Your task to perform on an android device: Go to calendar. Show me events next week Image 0: 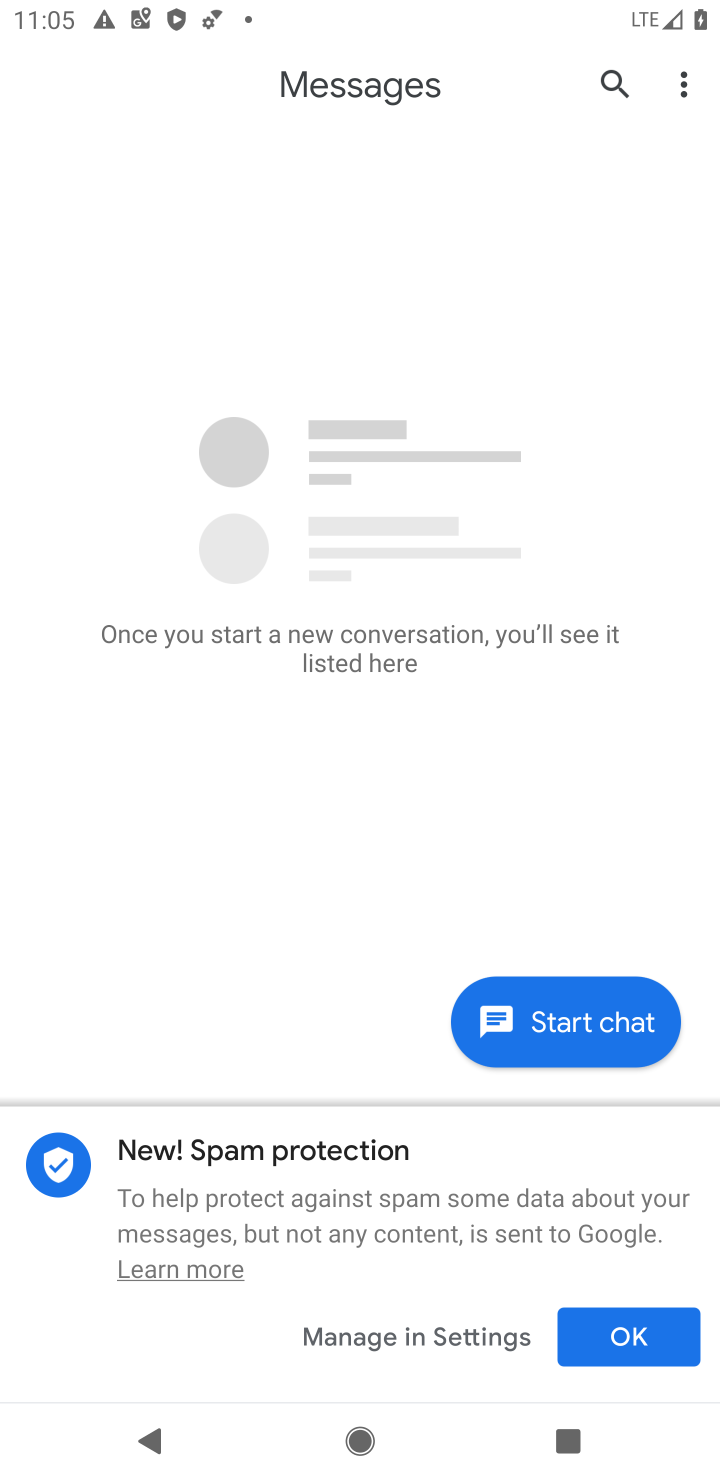
Step 0: press home button
Your task to perform on an android device: Go to calendar. Show me events next week Image 1: 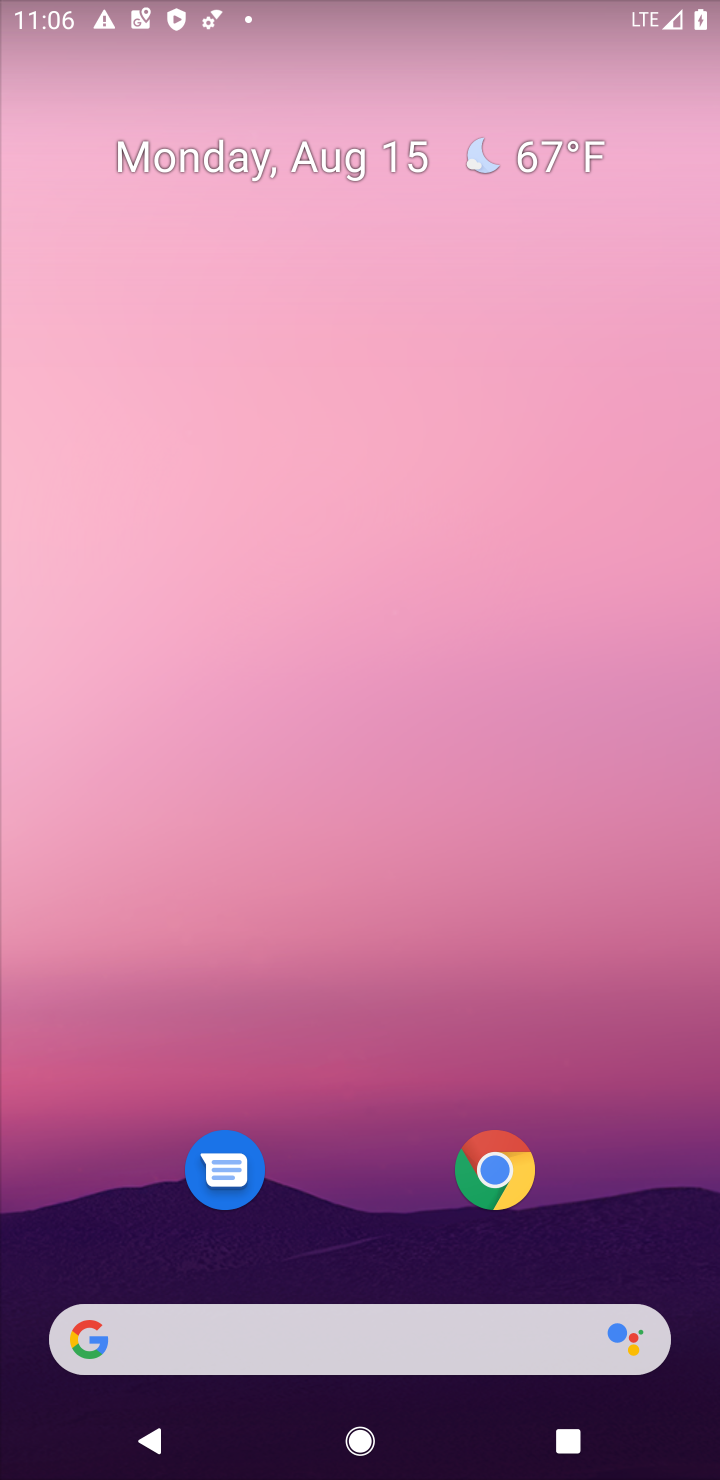
Step 1: drag from (454, 591) to (510, 87)
Your task to perform on an android device: Go to calendar. Show me events next week Image 2: 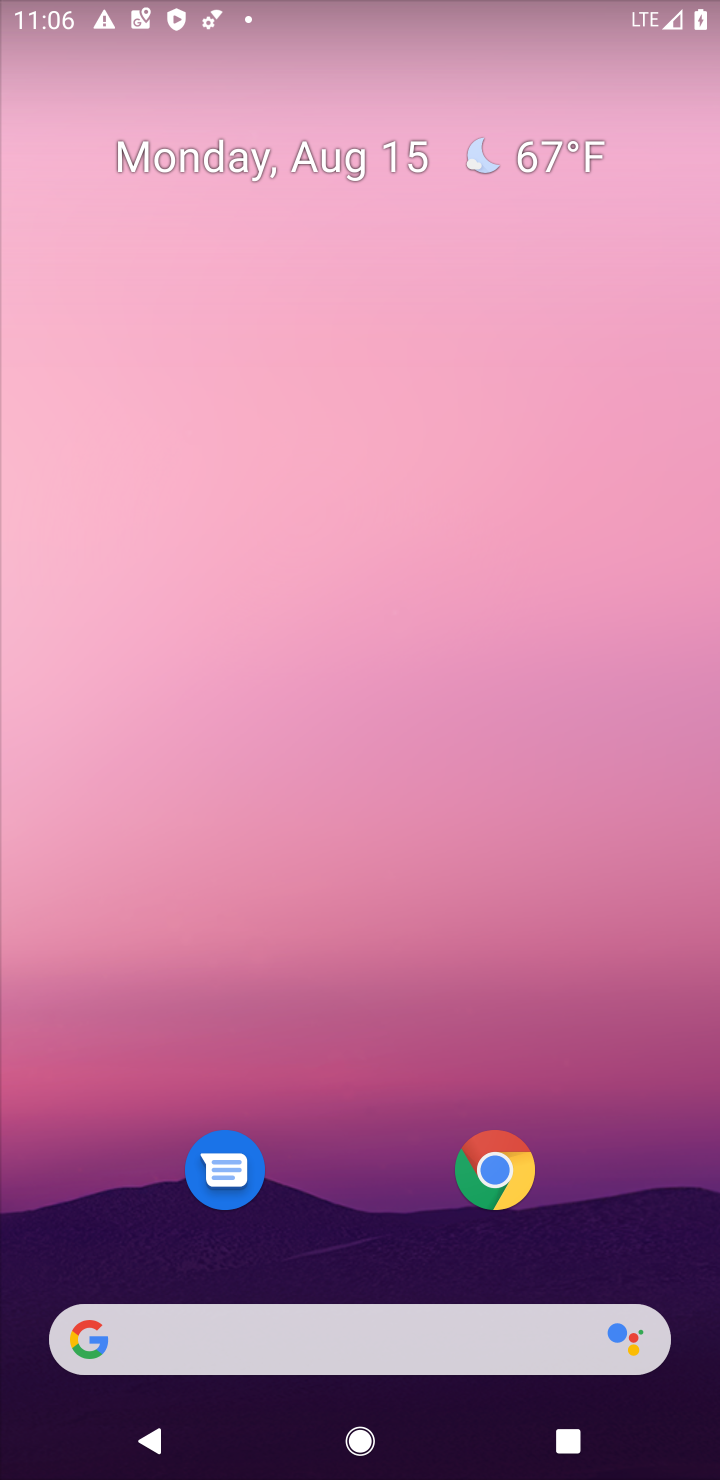
Step 2: drag from (365, 1249) to (449, 136)
Your task to perform on an android device: Go to calendar. Show me events next week Image 3: 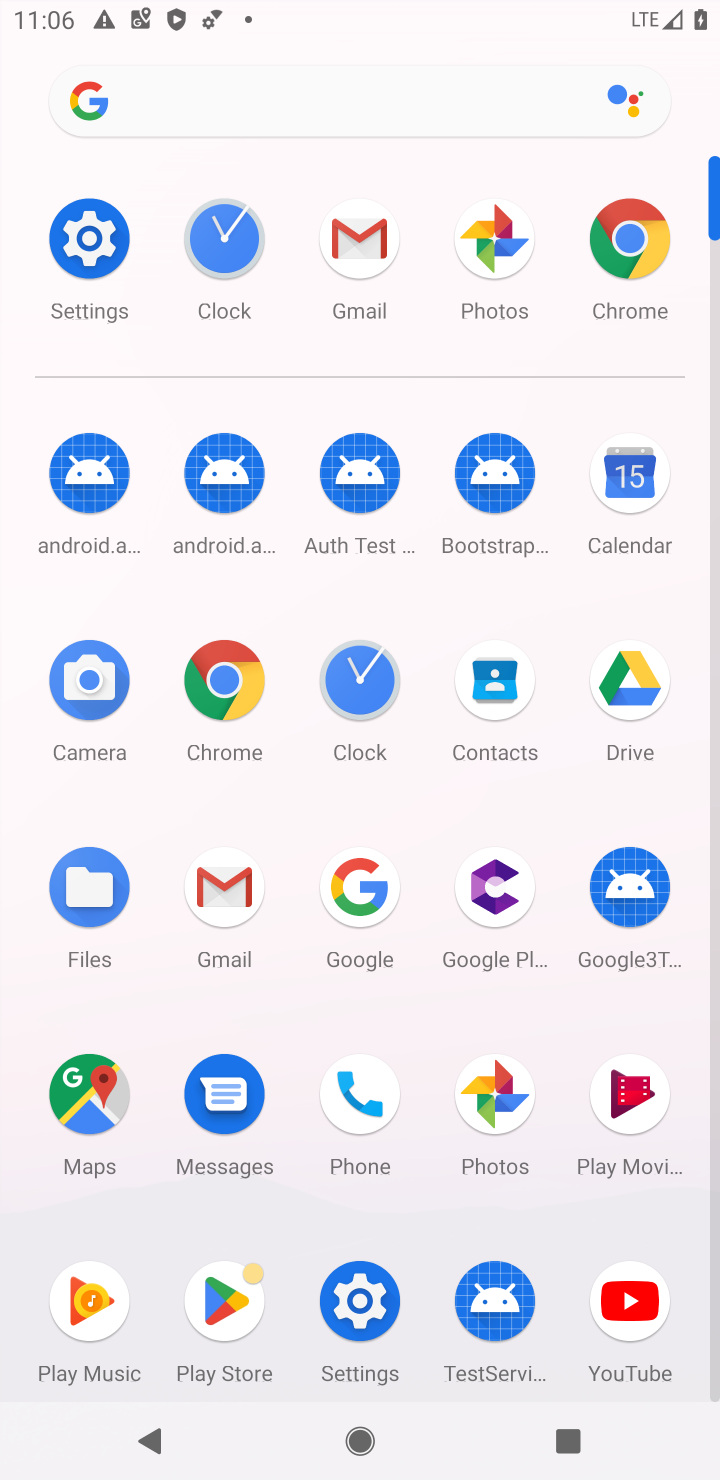
Step 3: click (621, 478)
Your task to perform on an android device: Go to calendar. Show me events next week Image 4: 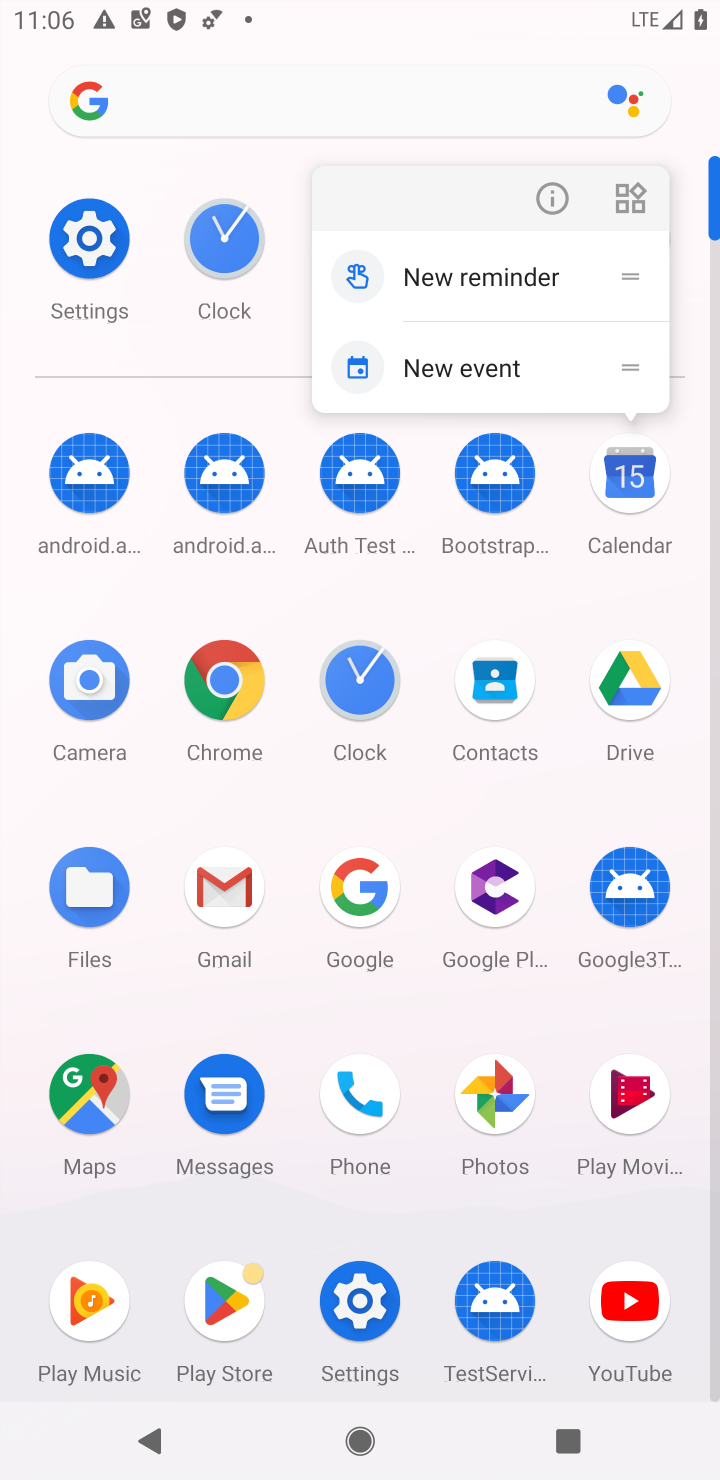
Step 4: click (621, 474)
Your task to perform on an android device: Go to calendar. Show me events next week Image 5: 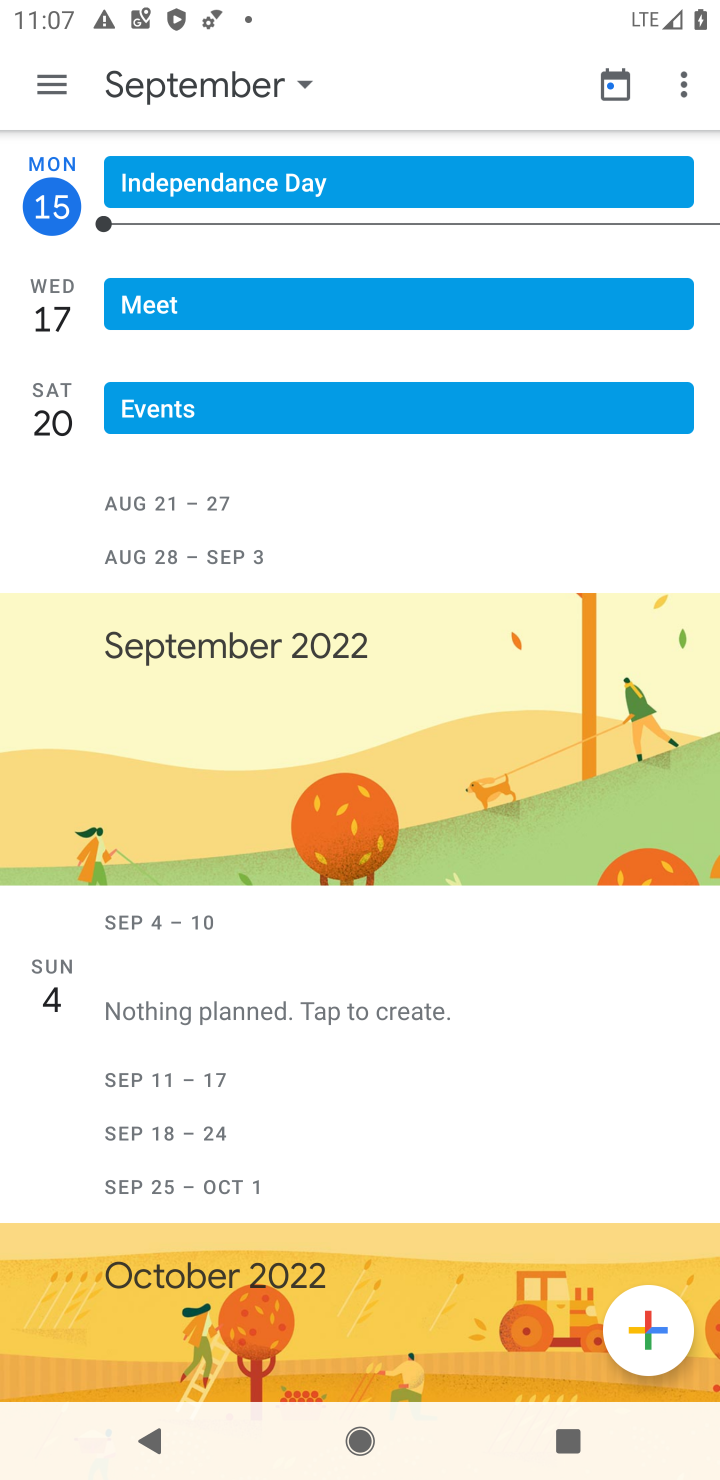
Step 5: click (48, 68)
Your task to perform on an android device: Go to calendar. Show me events next week Image 6: 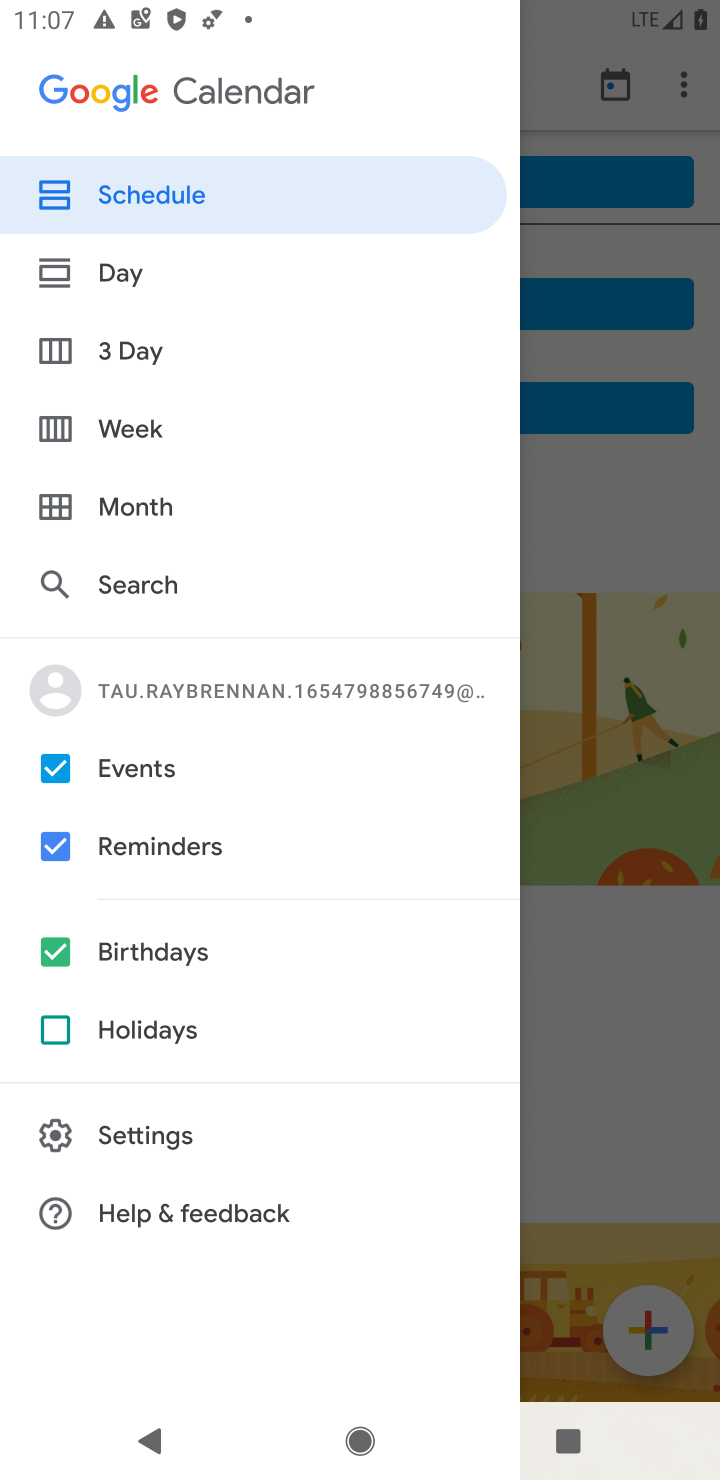
Step 6: click (112, 426)
Your task to perform on an android device: Go to calendar. Show me events next week Image 7: 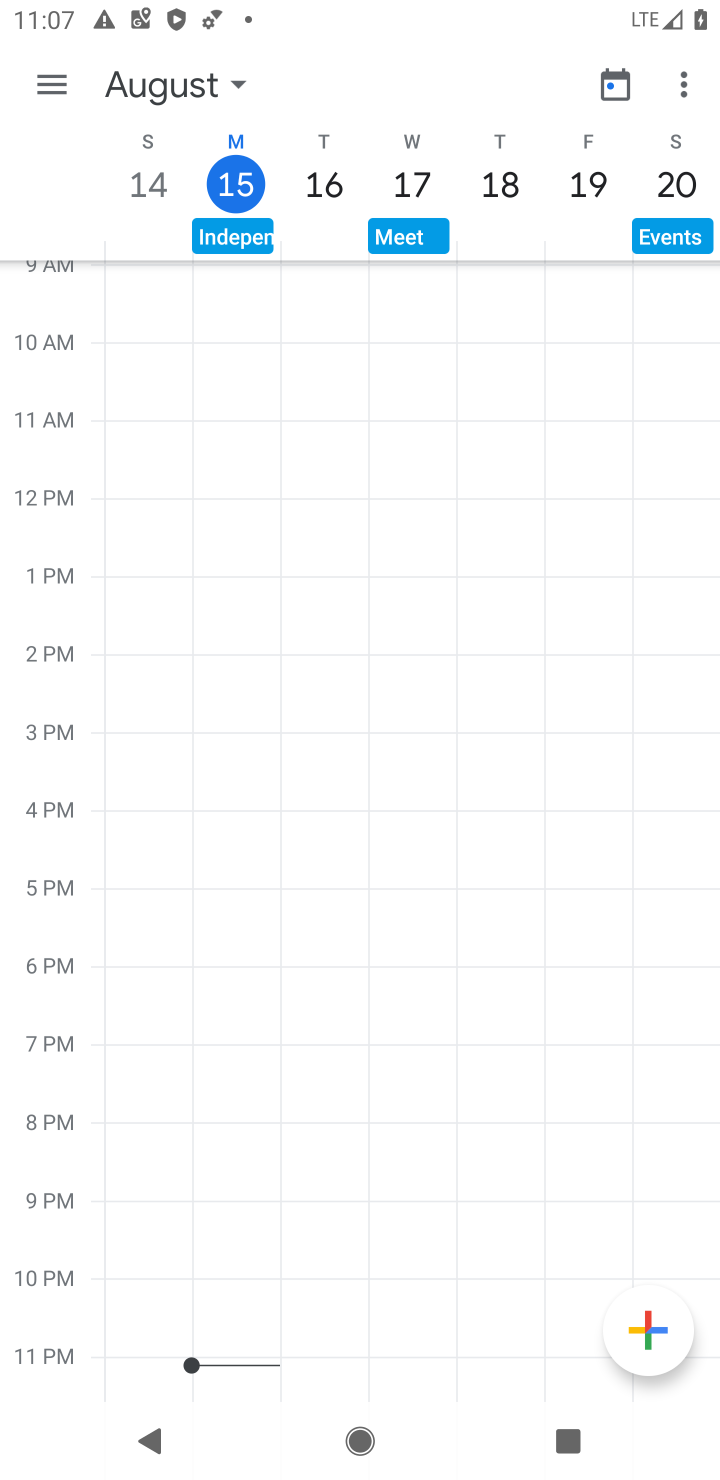
Step 7: click (231, 82)
Your task to perform on an android device: Go to calendar. Show me events next week Image 8: 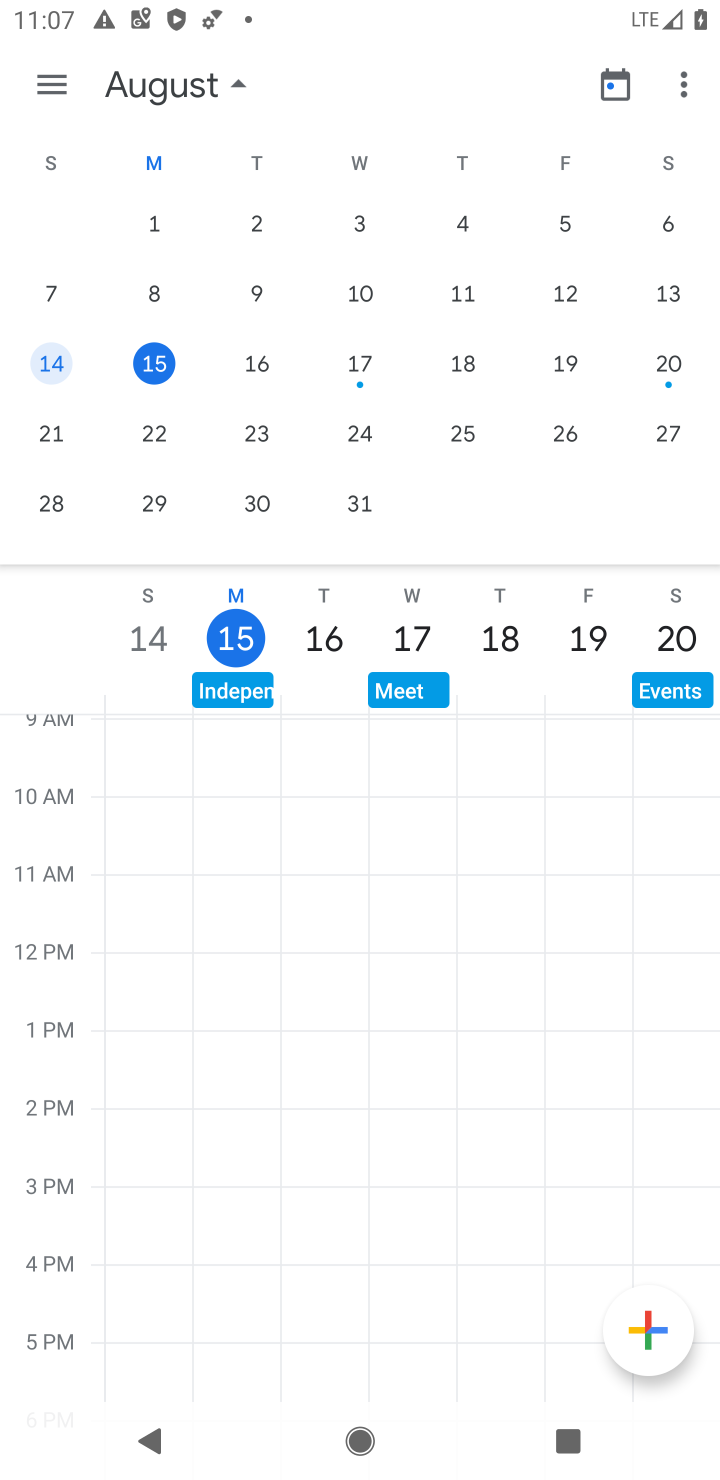
Step 8: click (159, 354)
Your task to perform on an android device: Go to calendar. Show me events next week Image 9: 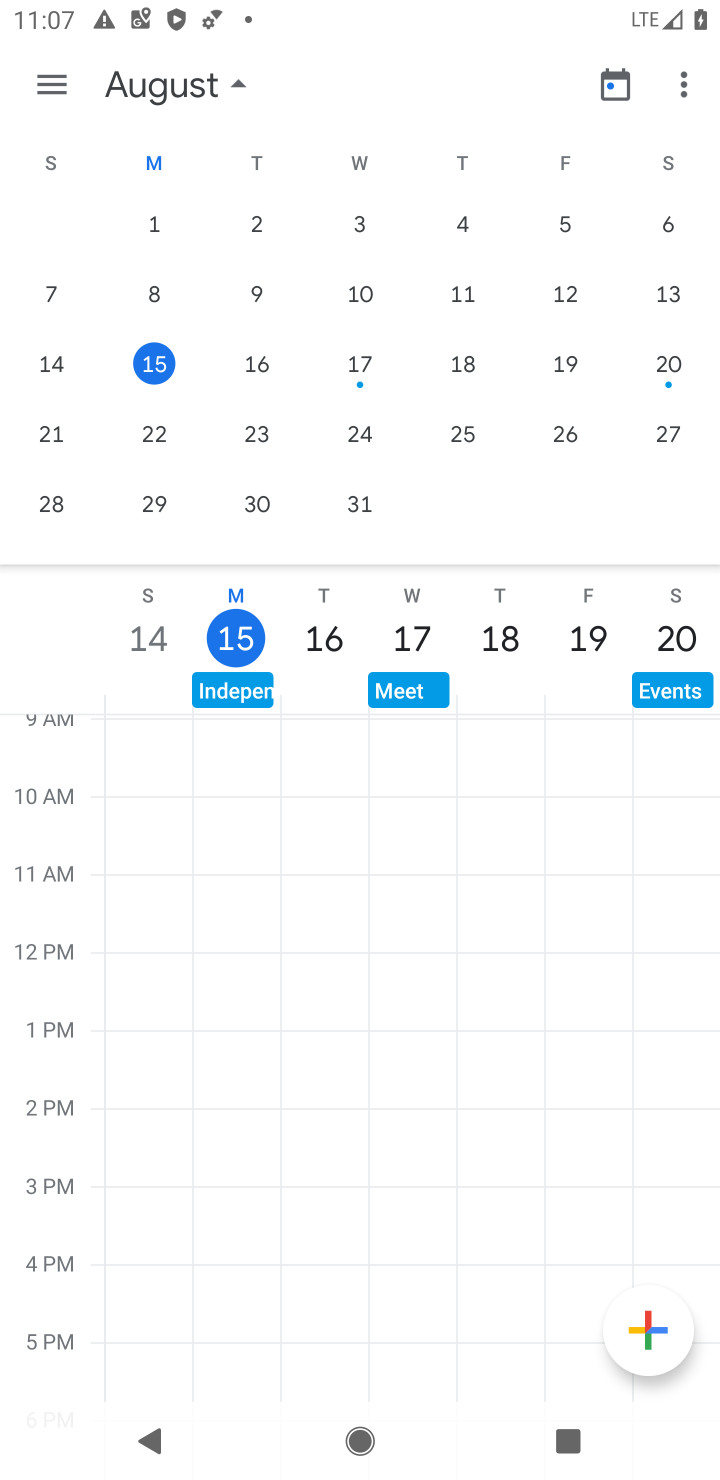
Step 9: click (135, 634)
Your task to perform on an android device: Go to calendar. Show me events next week Image 10: 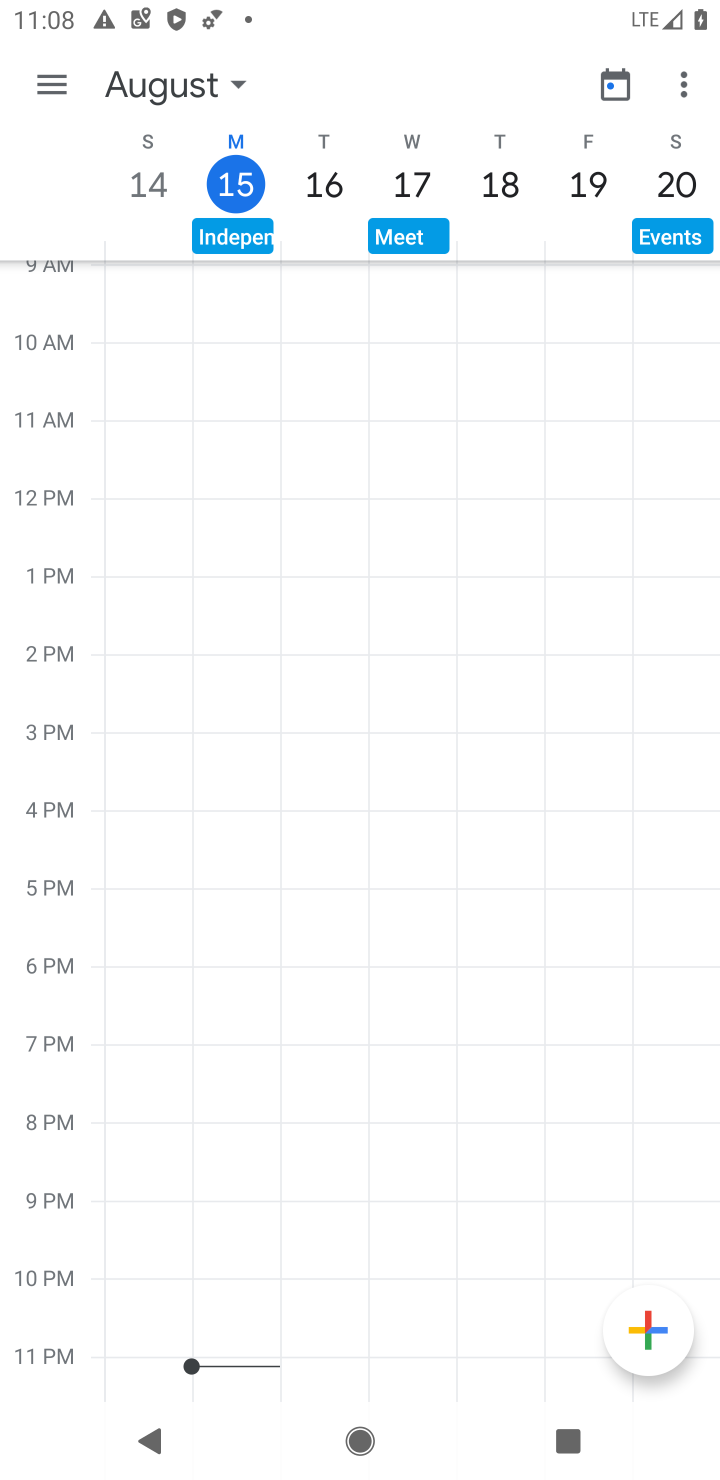
Step 10: click (238, 189)
Your task to perform on an android device: Go to calendar. Show me events next week Image 11: 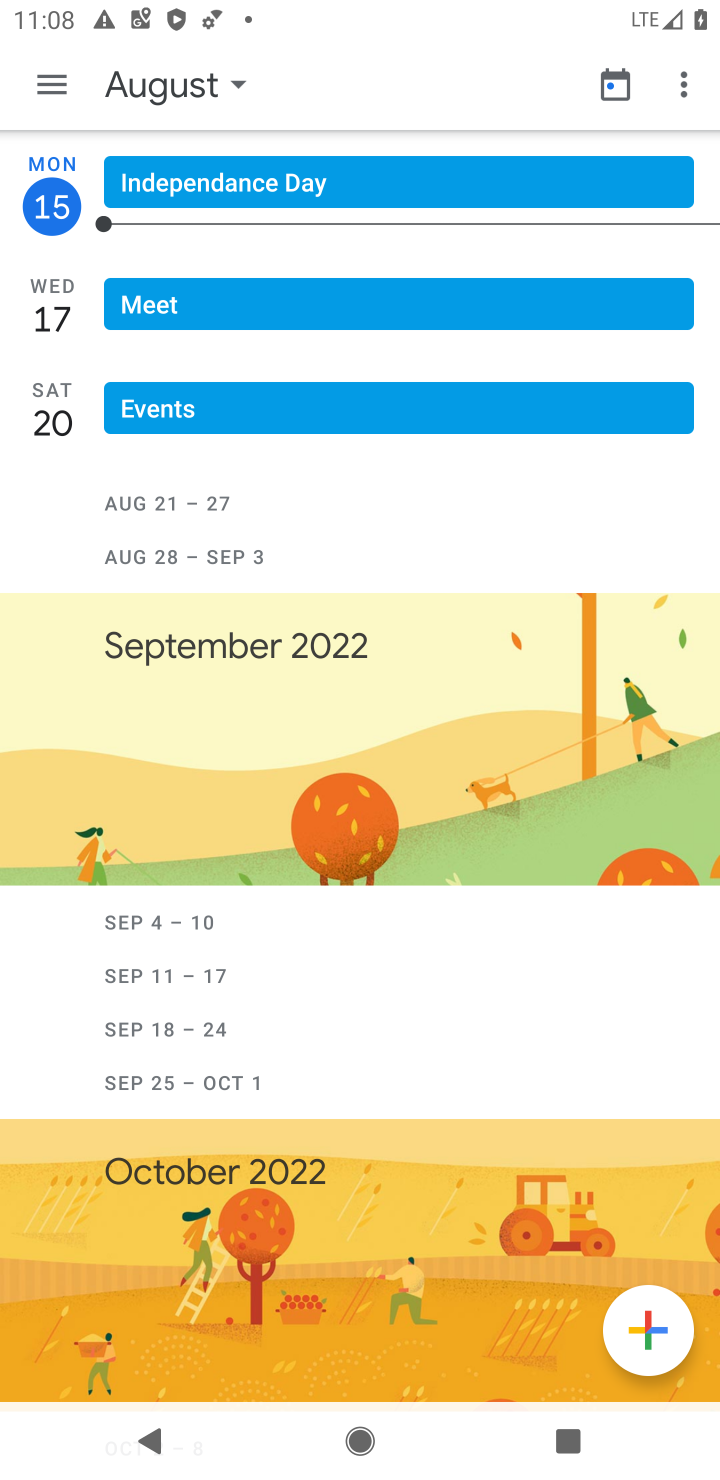
Step 11: task complete